Your task to perform on an android device: Search for the best Nike running shoes on Nike.com Image 0: 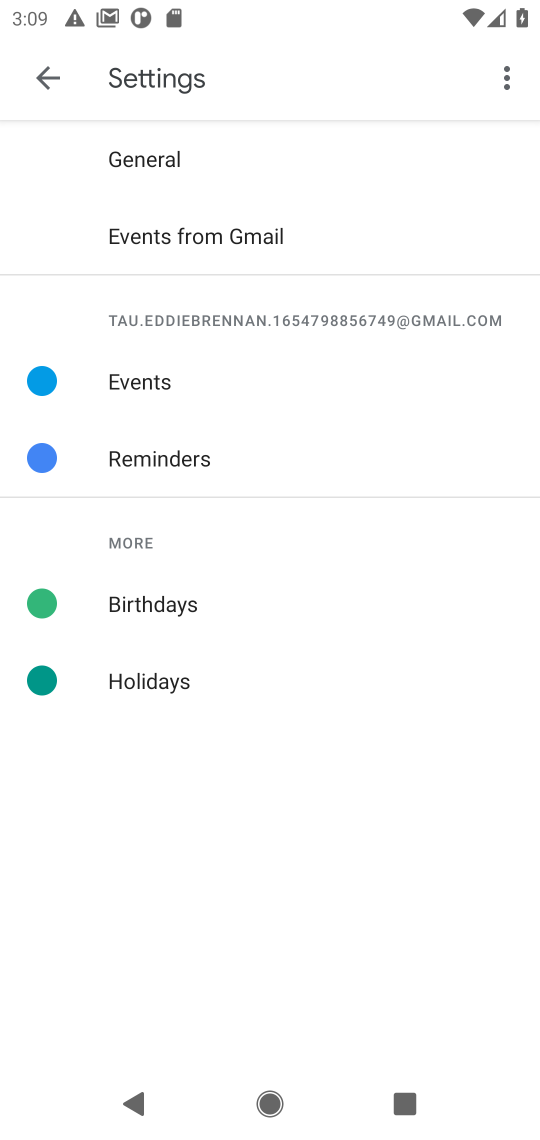
Step 0: press home button
Your task to perform on an android device: Search for the best Nike running shoes on Nike.com Image 1: 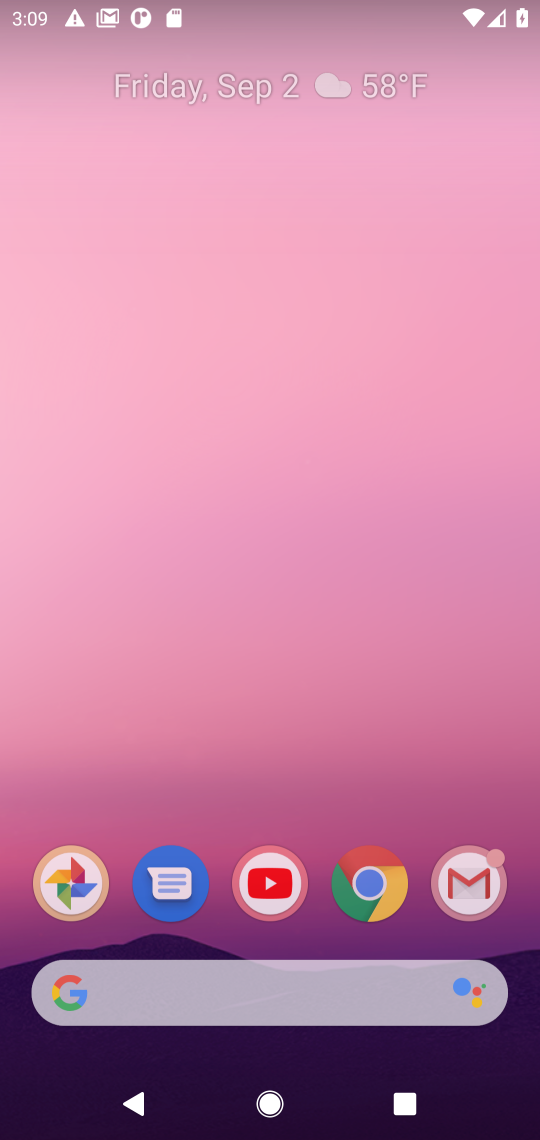
Step 1: press home button
Your task to perform on an android device: Search for the best Nike running shoes on Nike.com Image 2: 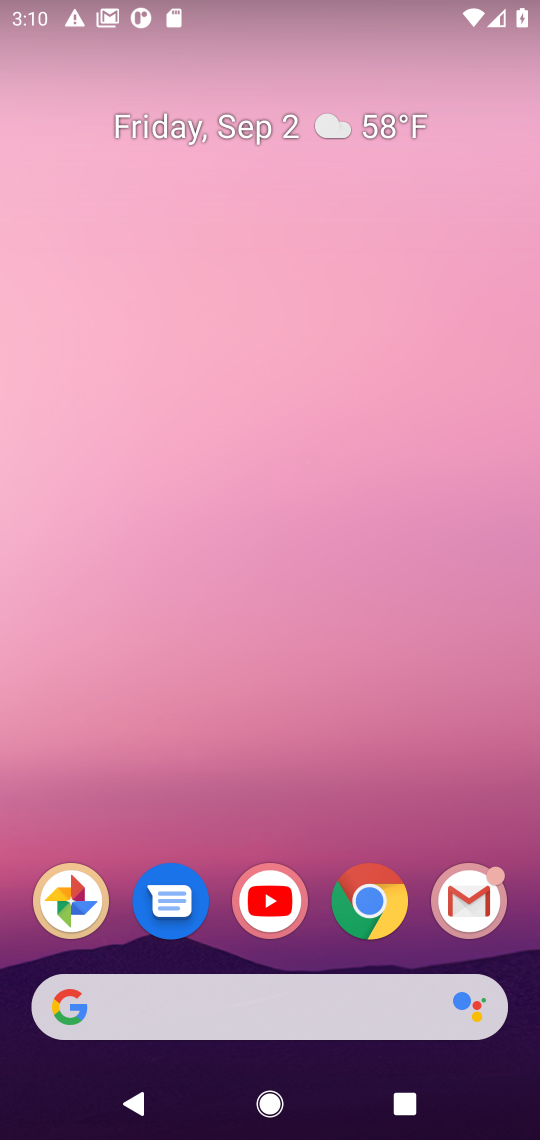
Step 2: drag from (332, 660) to (459, 26)
Your task to perform on an android device: Search for the best Nike running shoes on Nike.com Image 3: 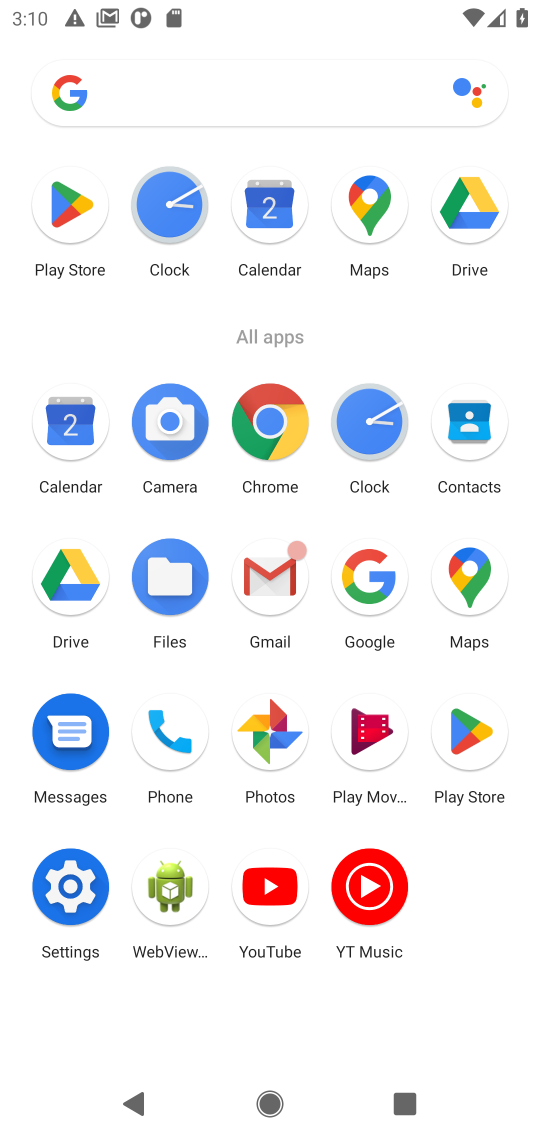
Step 3: click (291, 434)
Your task to perform on an android device: Search for the best Nike running shoes on Nike.com Image 4: 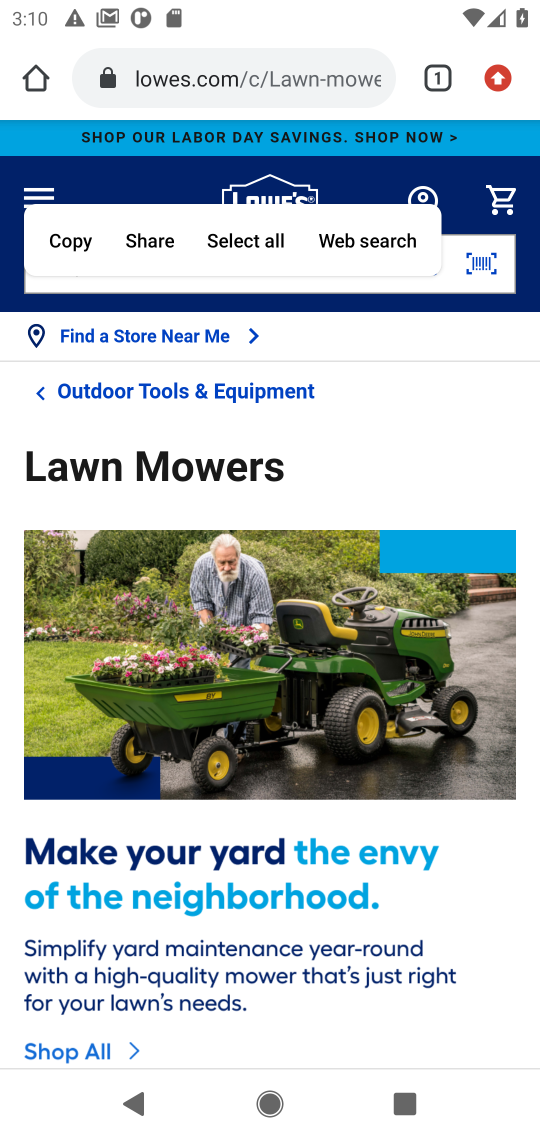
Step 4: click (301, 70)
Your task to perform on an android device: Search for the best Nike running shoes on Nike.com Image 5: 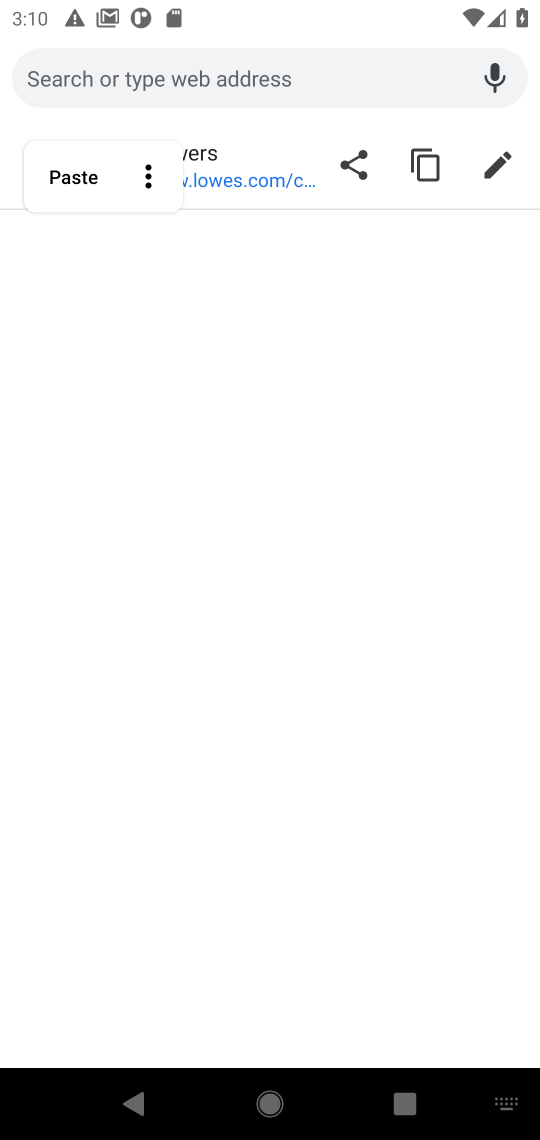
Step 5: type "best Nike running shoes on Nike.com"
Your task to perform on an android device: Search for the best Nike running shoes on Nike.com Image 6: 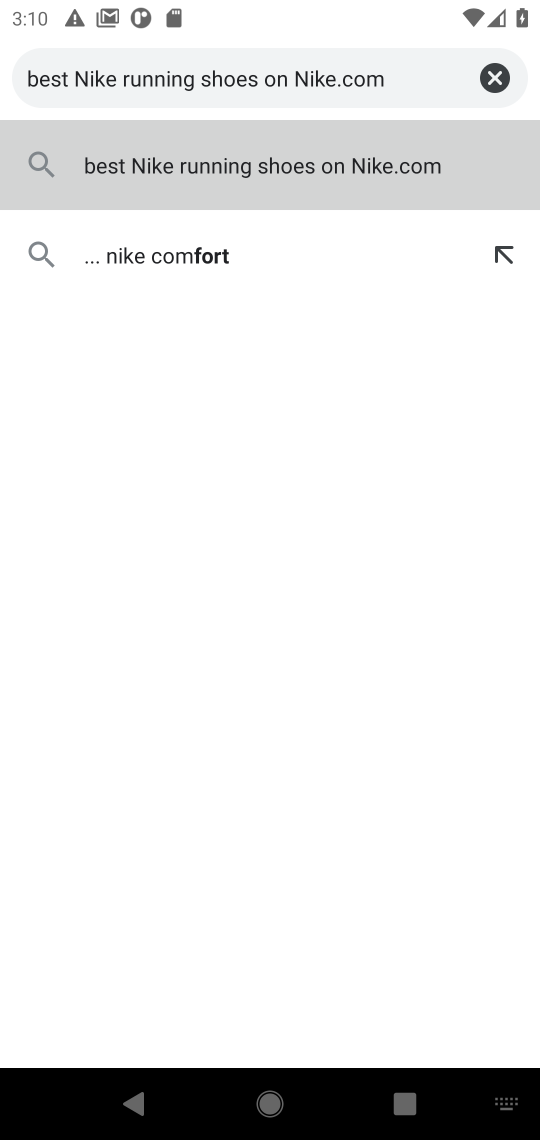
Step 6: press enter
Your task to perform on an android device: Search for the best Nike running shoes on Nike.com Image 7: 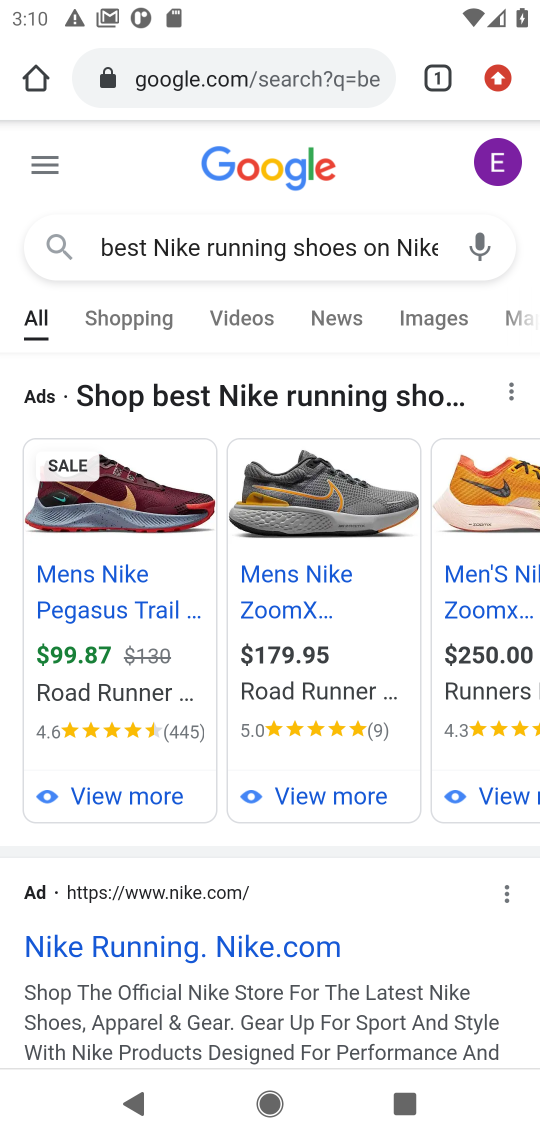
Step 7: drag from (304, 920) to (312, 228)
Your task to perform on an android device: Search for the best Nike running shoes on Nike.com Image 8: 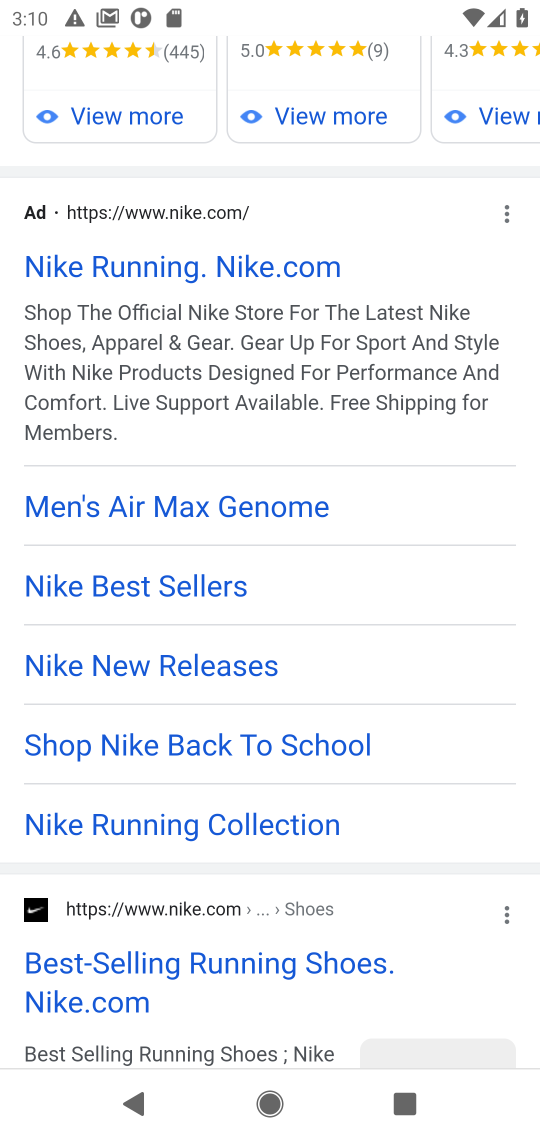
Step 8: click (239, 969)
Your task to perform on an android device: Search for the best Nike running shoes on Nike.com Image 9: 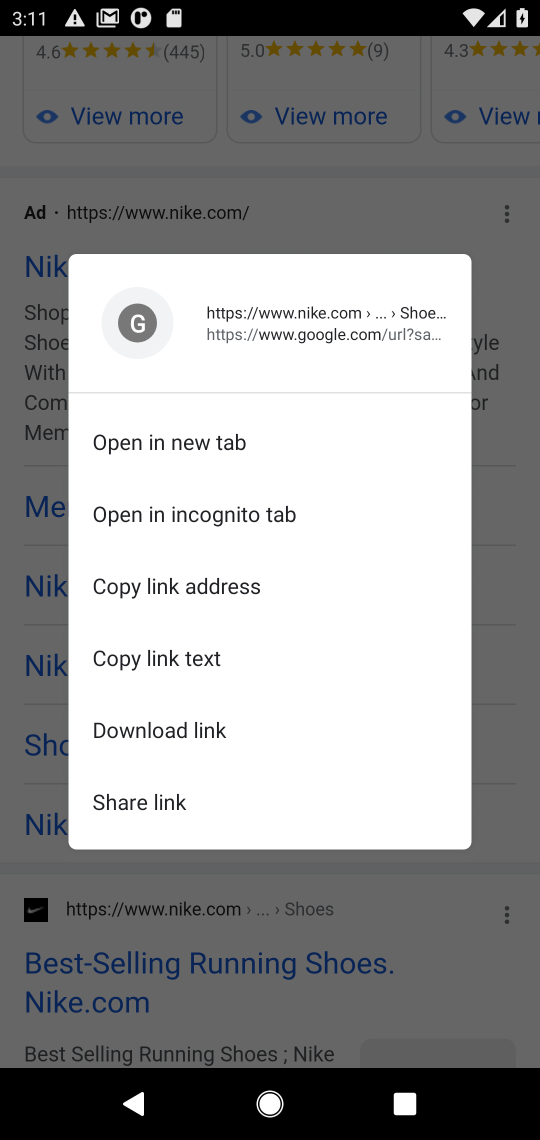
Step 9: click (188, 446)
Your task to perform on an android device: Search for the best Nike running shoes on Nike.com Image 10: 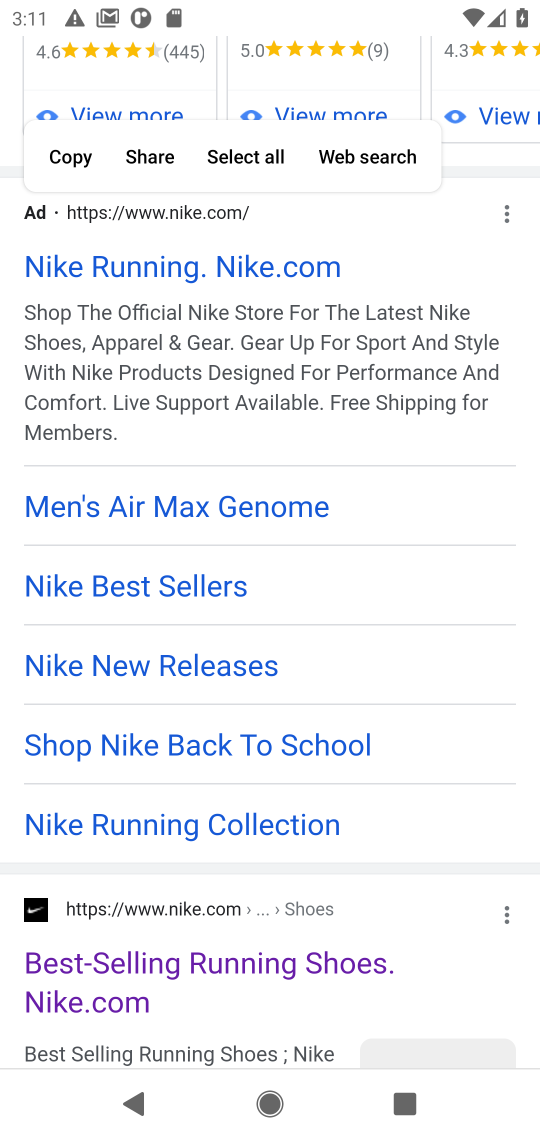
Step 10: click (200, 957)
Your task to perform on an android device: Search for the best Nike running shoes on Nike.com Image 11: 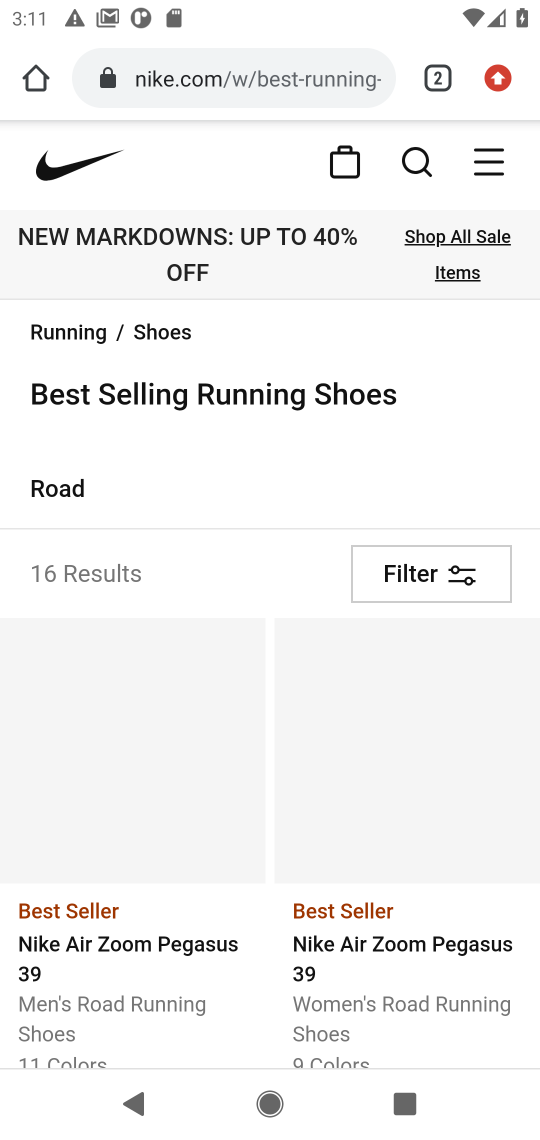
Step 11: task complete